Your task to perform on an android device: change the clock display to show seconds Image 0: 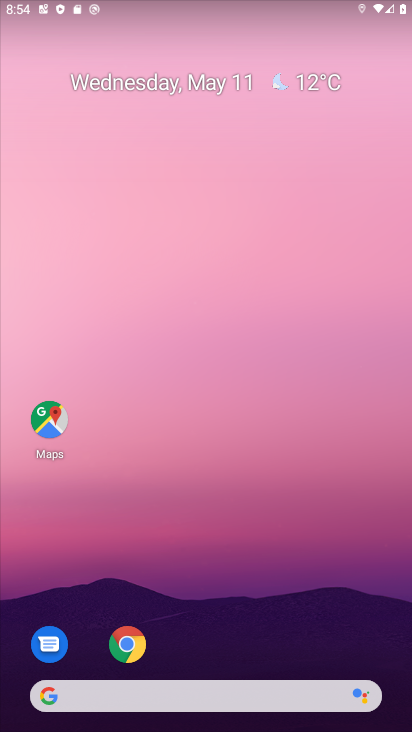
Step 0: drag from (201, 584) to (270, 179)
Your task to perform on an android device: change the clock display to show seconds Image 1: 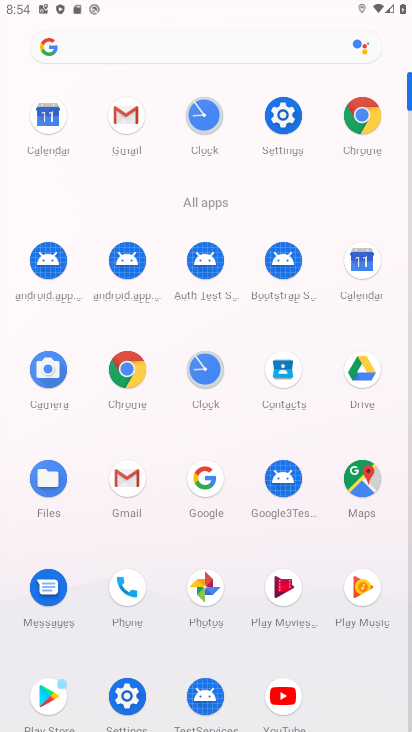
Step 1: click (202, 375)
Your task to perform on an android device: change the clock display to show seconds Image 2: 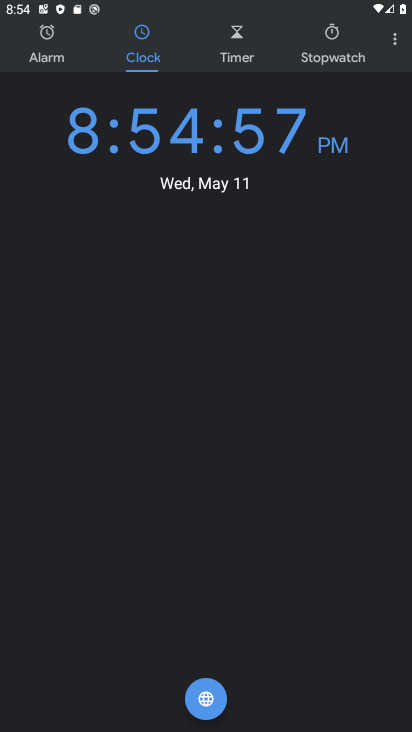
Step 2: click (392, 40)
Your task to perform on an android device: change the clock display to show seconds Image 3: 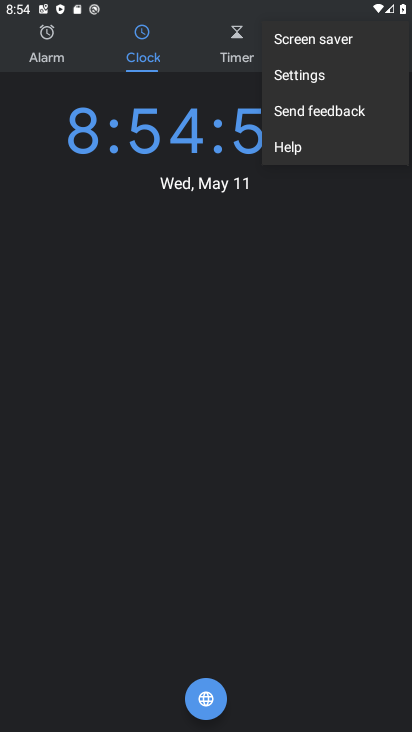
Step 3: click (343, 74)
Your task to perform on an android device: change the clock display to show seconds Image 4: 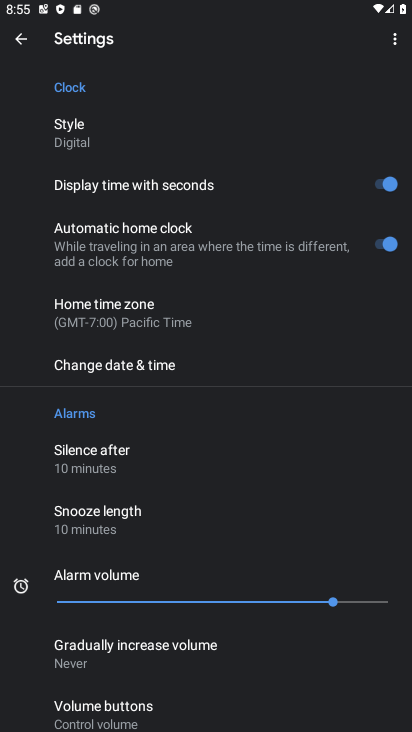
Step 4: task complete